Your task to perform on an android device: visit the assistant section in the google photos Image 0: 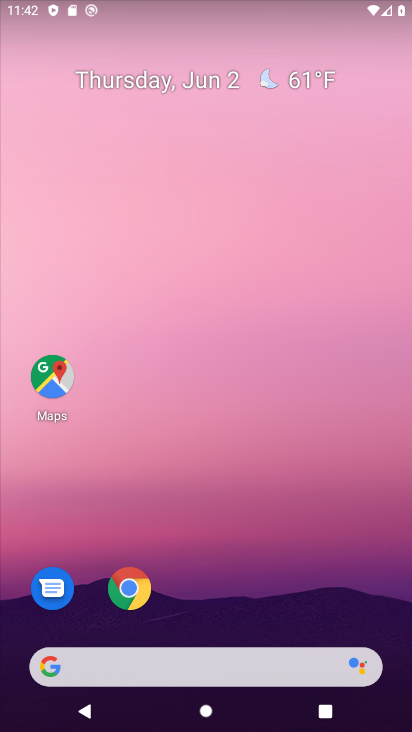
Step 0: drag from (231, 557) to (240, 227)
Your task to perform on an android device: visit the assistant section in the google photos Image 1: 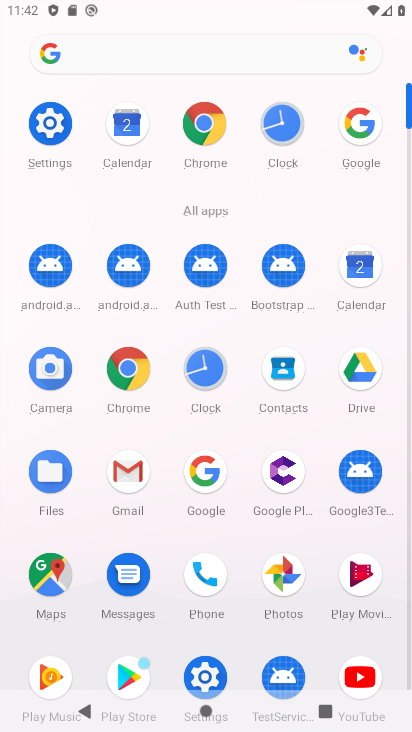
Step 1: click (278, 592)
Your task to perform on an android device: visit the assistant section in the google photos Image 2: 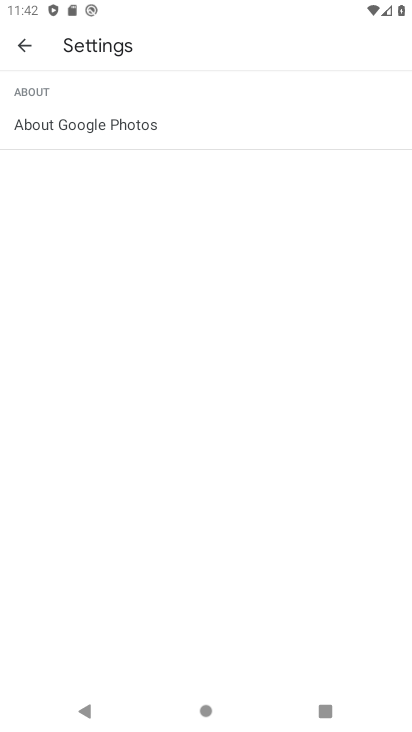
Step 2: press home button
Your task to perform on an android device: visit the assistant section in the google photos Image 3: 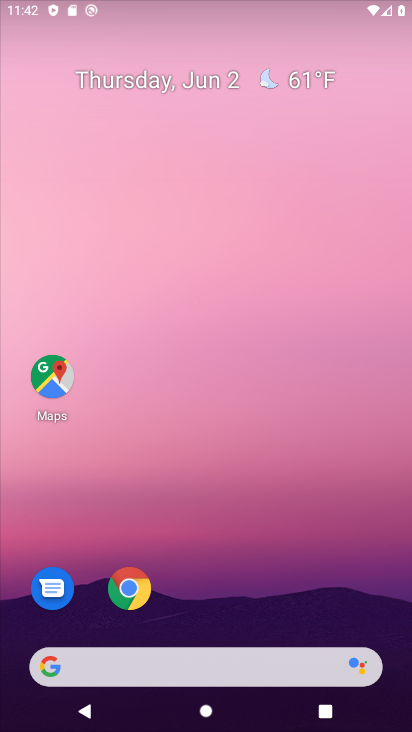
Step 3: drag from (285, 615) to (298, 148)
Your task to perform on an android device: visit the assistant section in the google photos Image 4: 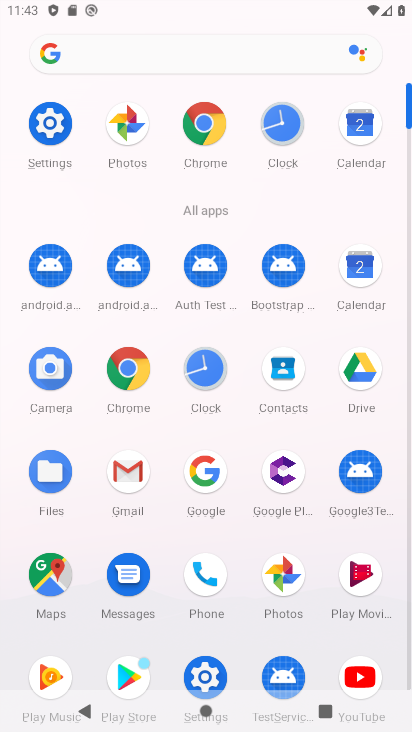
Step 4: click (272, 590)
Your task to perform on an android device: visit the assistant section in the google photos Image 5: 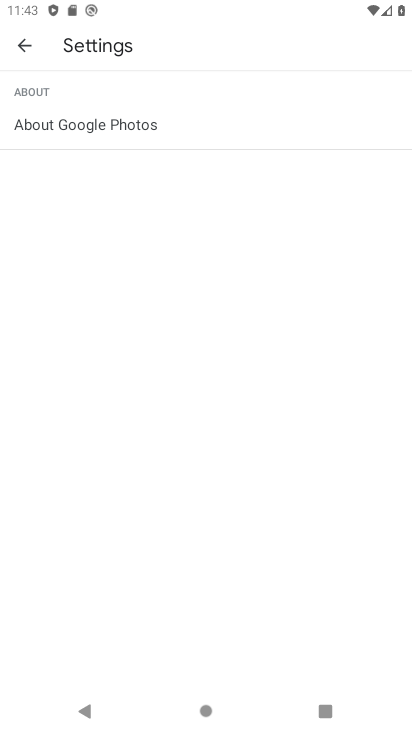
Step 5: press back button
Your task to perform on an android device: visit the assistant section in the google photos Image 6: 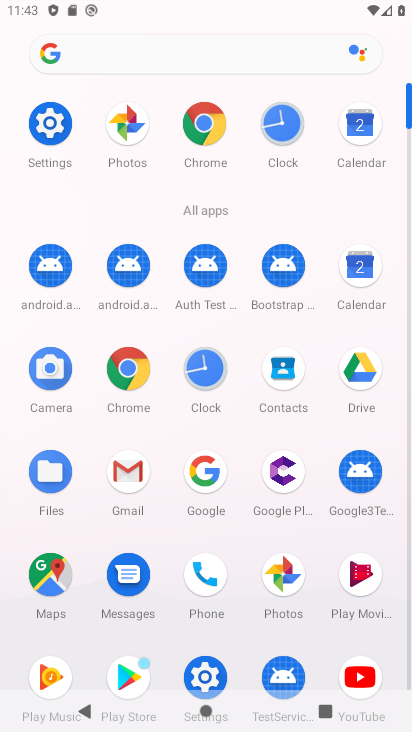
Step 6: click (287, 577)
Your task to perform on an android device: visit the assistant section in the google photos Image 7: 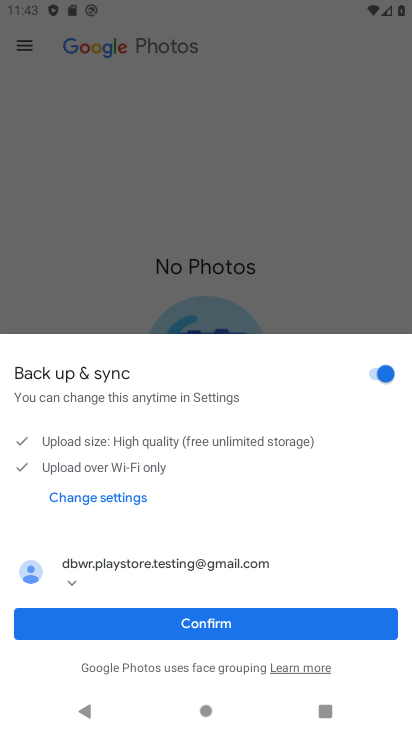
Step 7: click (249, 636)
Your task to perform on an android device: visit the assistant section in the google photos Image 8: 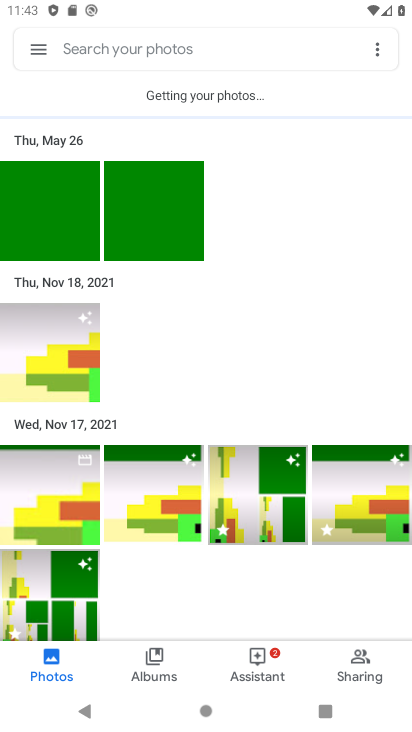
Step 8: click (259, 673)
Your task to perform on an android device: visit the assistant section in the google photos Image 9: 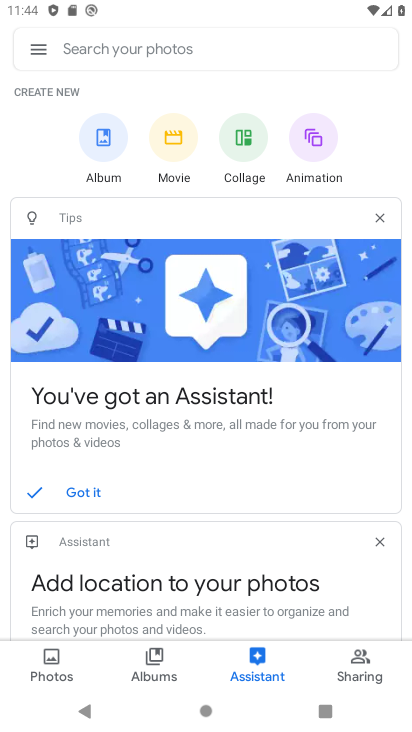
Step 9: task complete